Your task to perform on an android device: move an email to a new category in the gmail app Image 0: 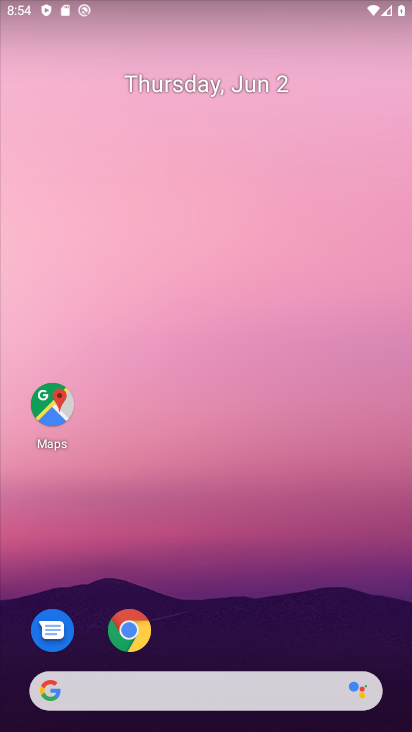
Step 0: drag from (203, 624) to (228, 58)
Your task to perform on an android device: move an email to a new category in the gmail app Image 1: 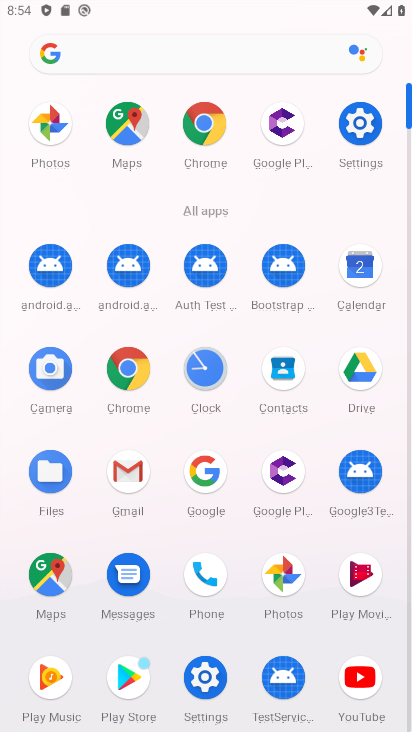
Step 1: click (131, 470)
Your task to perform on an android device: move an email to a new category in the gmail app Image 2: 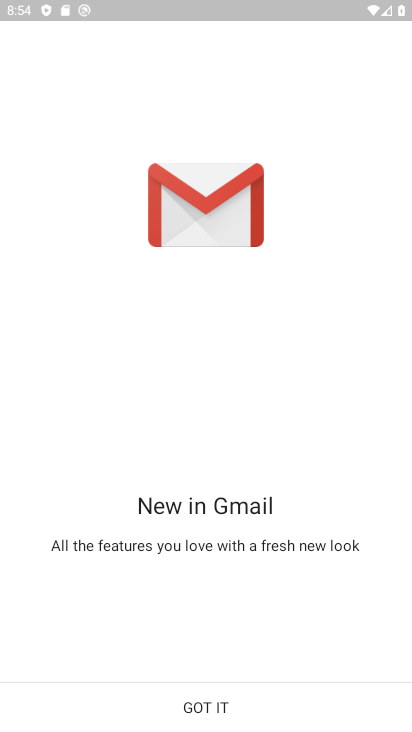
Step 2: click (198, 705)
Your task to perform on an android device: move an email to a new category in the gmail app Image 3: 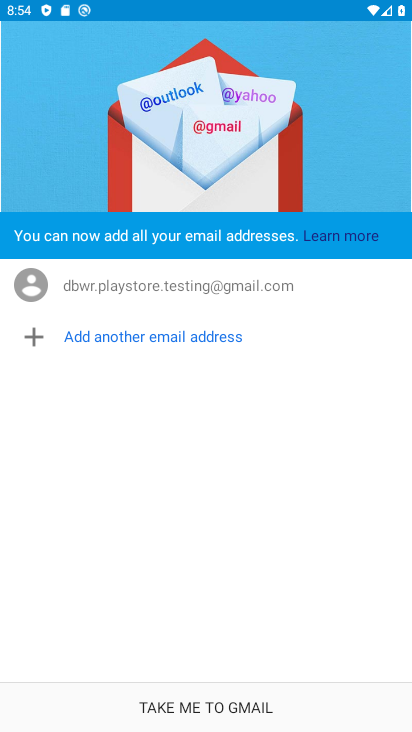
Step 3: click (198, 705)
Your task to perform on an android device: move an email to a new category in the gmail app Image 4: 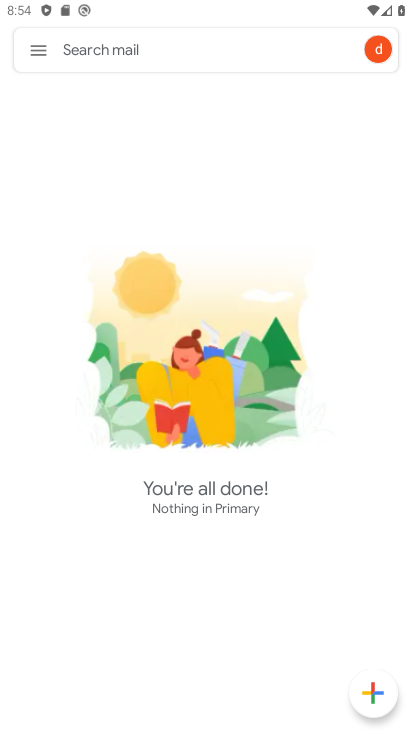
Step 4: click (39, 48)
Your task to perform on an android device: move an email to a new category in the gmail app Image 5: 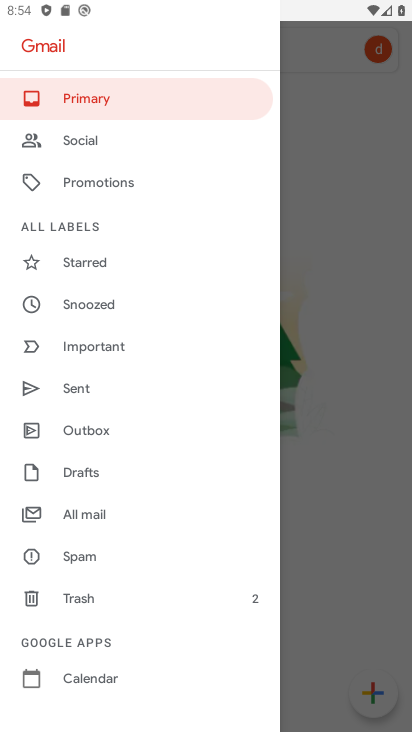
Step 5: click (103, 522)
Your task to perform on an android device: move an email to a new category in the gmail app Image 6: 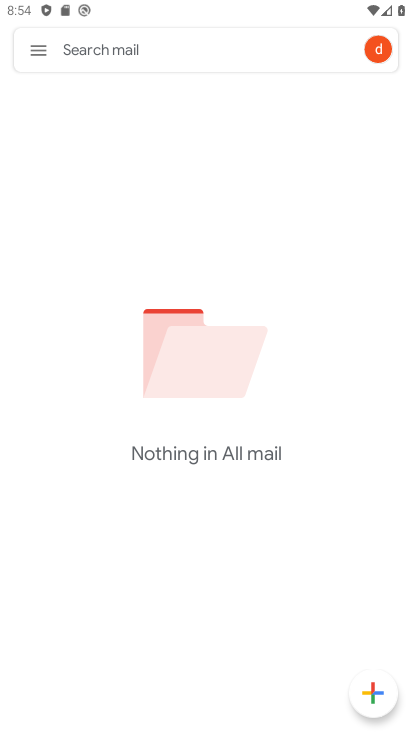
Step 6: task complete